Your task to perform on an android device: Is it going to rain tomorrow? Image 0: 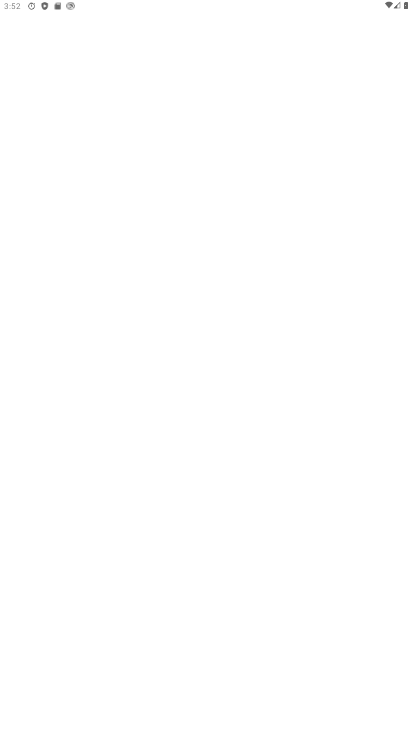
Step 0: drag from (323, 597) to (318, 80)
Your task to perform on an android device: Is it going to rain tomorrow? Image 1: 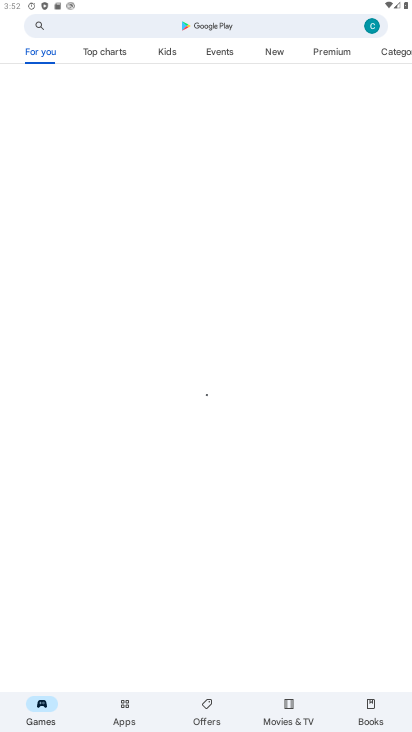
Step 1: press home button
Your task to perform on an android device: Is it going to rain tomorrow? Image 2: 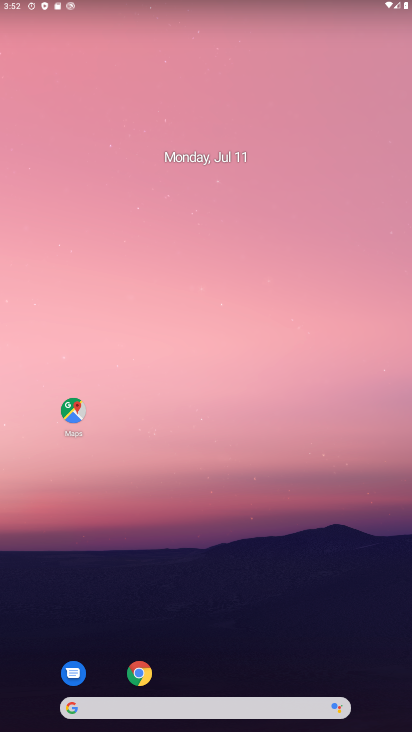
Step 2: drag from (201, 597) to (239, 452)
Your task to perform on an android device: Is it going to rain tomorrow? Image 3: 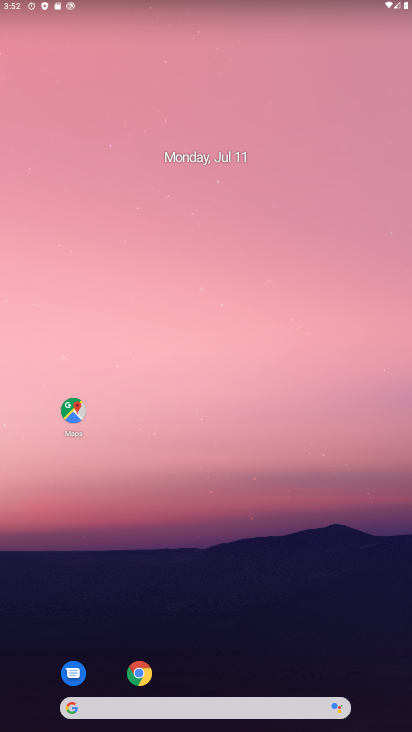
Step 3: drag from (278, 563) to (236, 1)
Your task to perform on an android device: Is it going to rain tomorrow? Image 4: 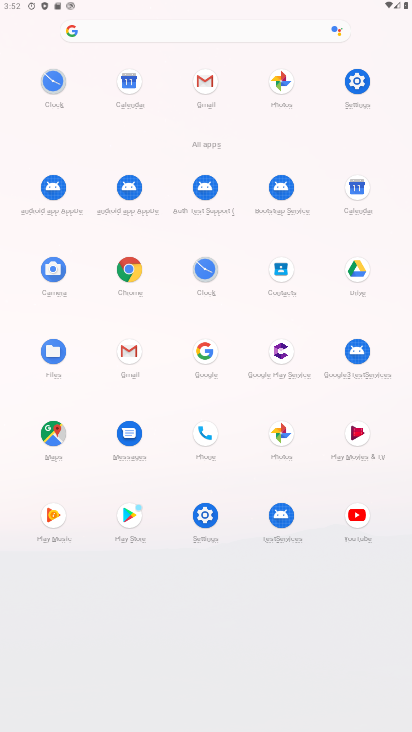
Step 4: click (124, 264)
Your task to perform on an android device: Is it going to rain tomorrow? Image 5: 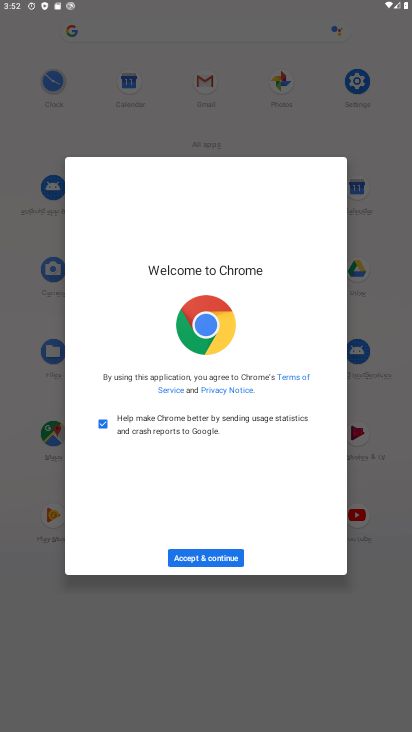
Step 5: click (219, 562)
Your task to perform on an android device: Is it going to rain tomorrow? Image 6: 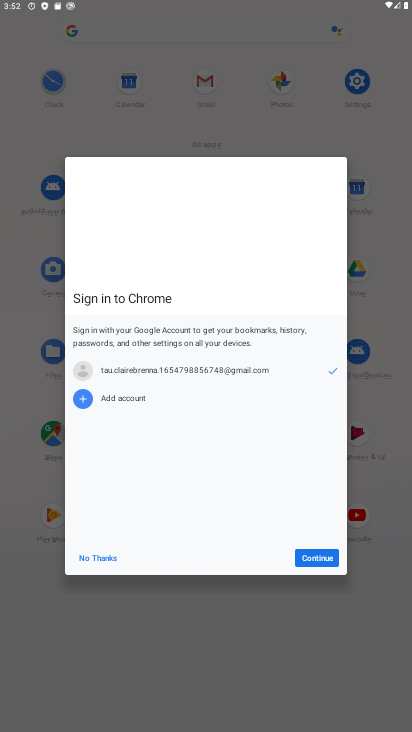
Step 6: click (328, 558)
Your task to perform on an android device: Is it going to rain tomorrow? Image 7: 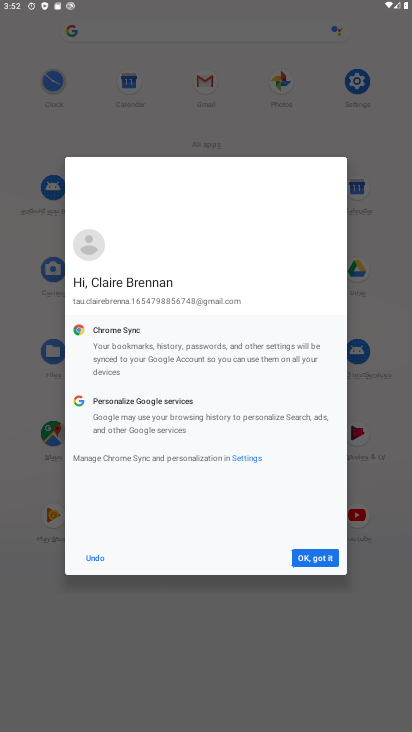
Step 7: click (316, 559)
Your task to perform on an android device: Is it going to rain tomorrow? Image 8: 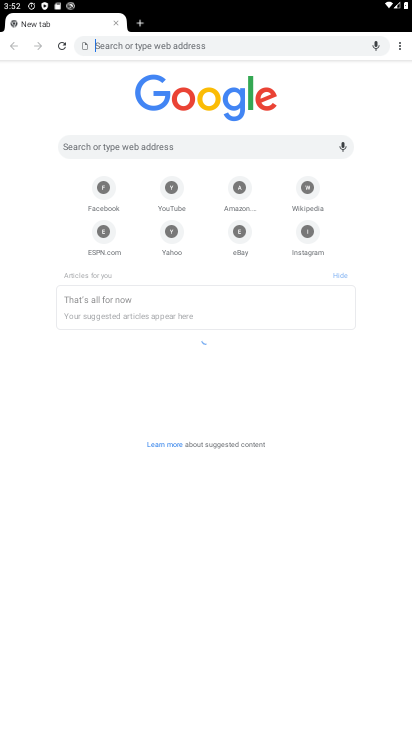
Step 8: click (150, 46)
Your task to perform on an android device: Is it going to rain tomorrow? Image 9: 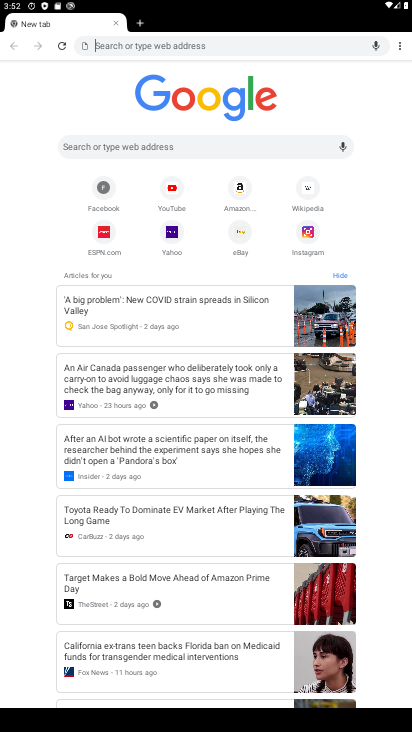
Step 9: type "Is it going to rain tomorrow?"
Your task to perform on an android device: Is it going to rain tomorrow? Image 10: 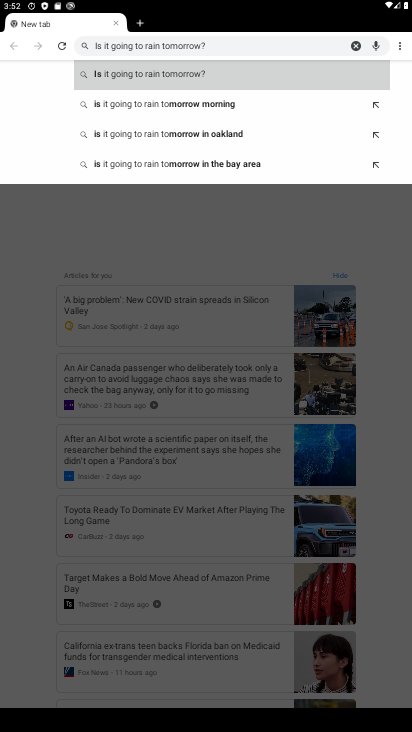
Step 10: click (181, 74)
Your task to perform on an android device: Is it going to rain tomorrow? Image 11: 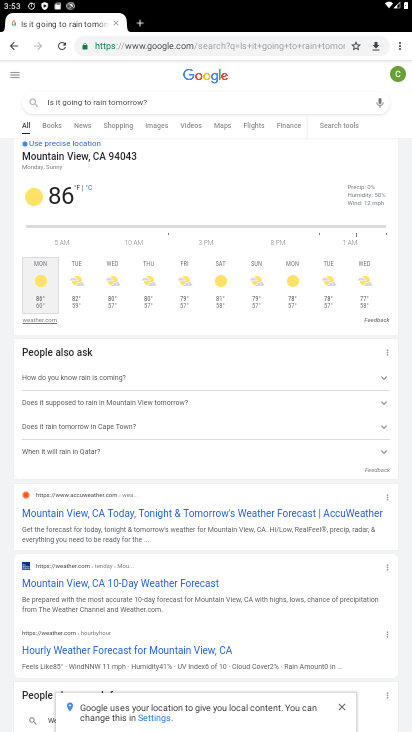
Step 11: task complete